Your task to perform on an android device: uninstall "Airtel Thanks" Image 0: 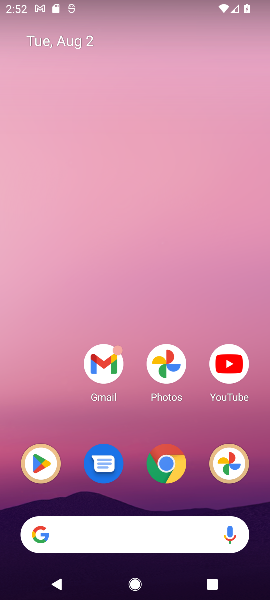
Step 0: press home button
Your task to perform on an android device: uninstall "Airtel Thanks" Image 1: 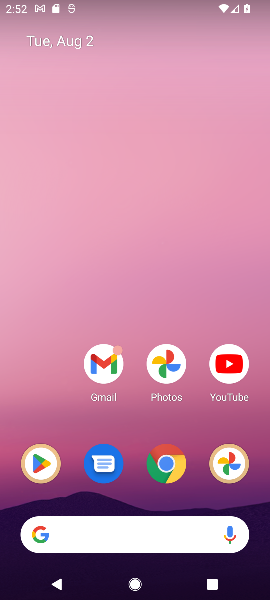
Step 1: click (35, 461)
Your task to perform on an android device: uninstall "Airtel Thanks" Image 2: 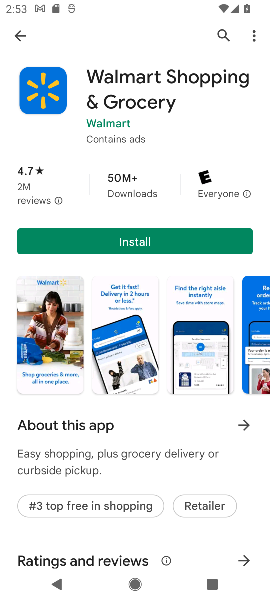
Step 2: click (223, 32)
Your task to perform on an android device: uninstall "Airtel Thanks" Image 3: 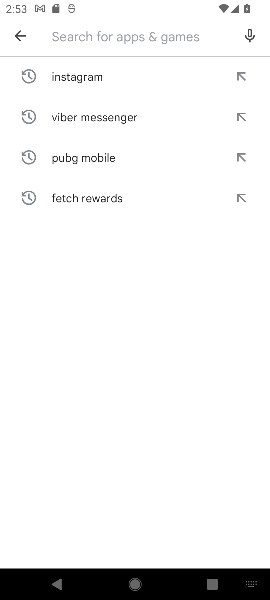
Step 3: type "Airtel Thanks"
Your task to perform on an android device: uninstall "Airtel Thanks" Image 4: 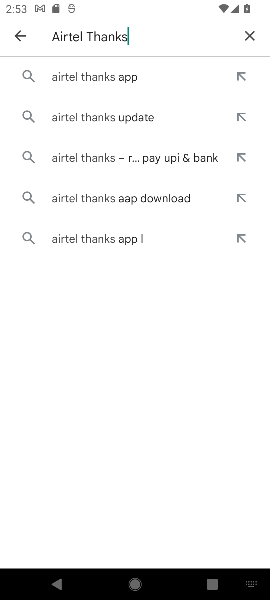
Step 4: click (120, 72)
Your task to perform on an android device: uninstall "Airtel Thanks" Image 5: 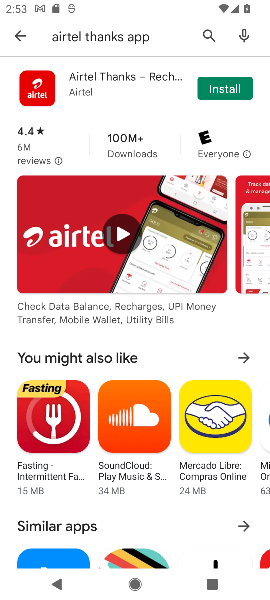
Step 5: task complete